Your task to perform on an android device: What's the weather going to be tomorrow? Image 0: 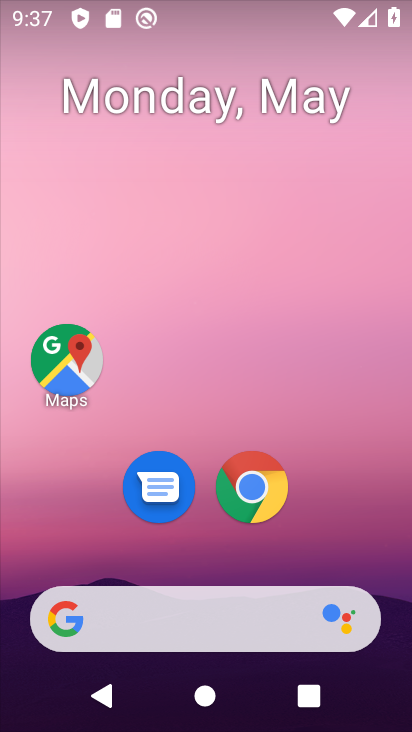
Step 0: drag from (237, 540) to (278, 25)
Your task to perform on an android device: What's the weather going to be tomorrow? Image 1: 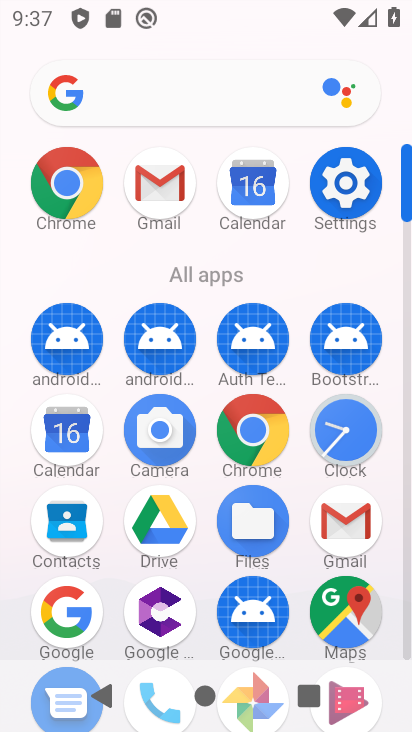
Step 1: click (167, 103)
Your task to perform on an android device: What's the weather going to be tomorrow? Image 2: 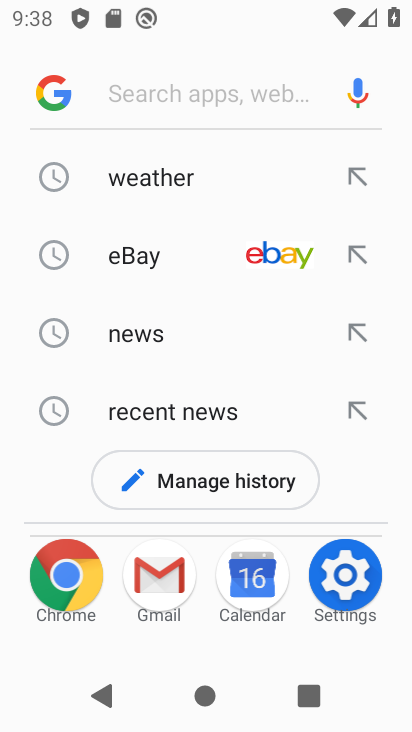
Step 2: type "what's the weather going to be tomorrow"
Your task to perform on an android device: What's the weather going to be tomorrow? Image 3: 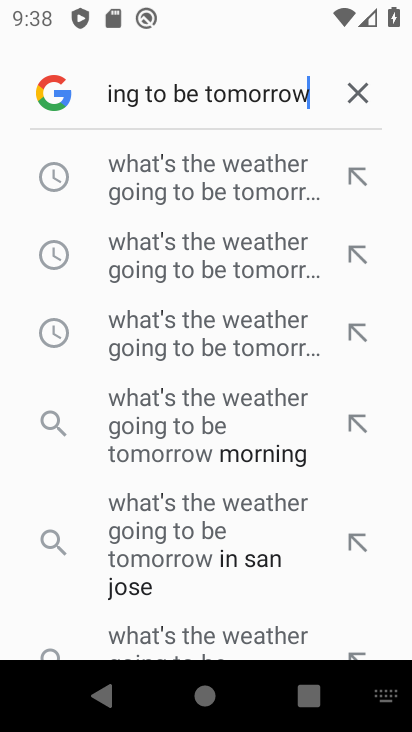
Step 3: click (139, 176)
Your task to perform on an android device: What's the weather going to be tomorrow? Image 4: 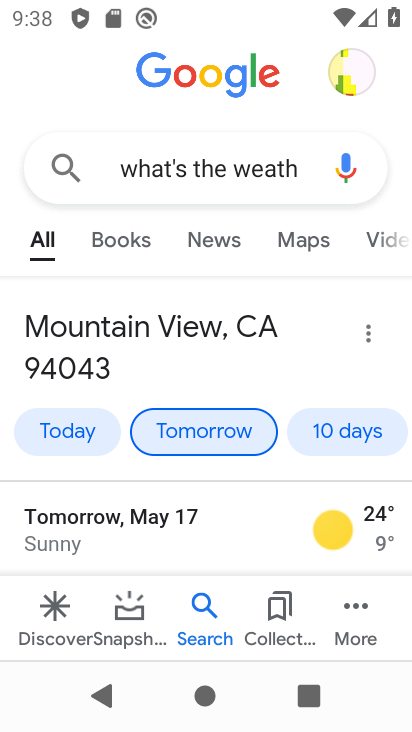
Step 4: task complete